Your task to perform on an android device: Go to Yahoo.com Image 0: 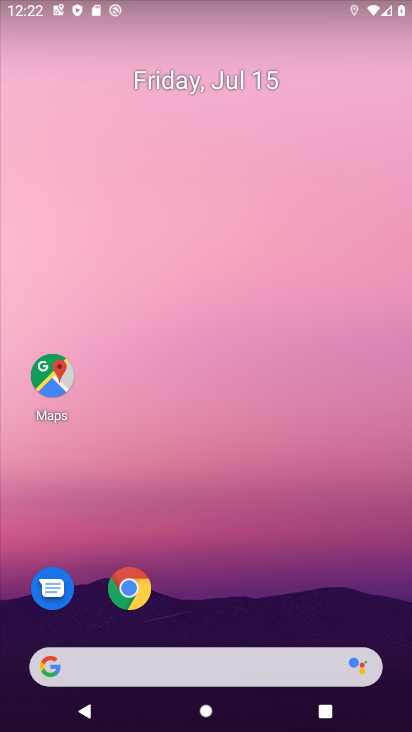
Step 0: click (264, 674)
Your task to perform on an android device: Go to Yahoo.com Image 1: 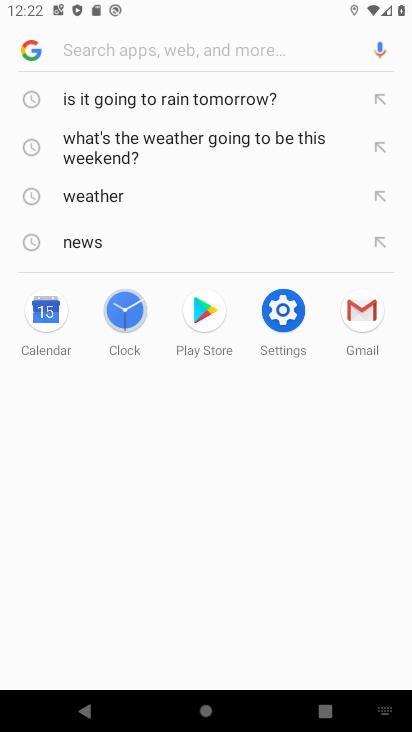
Step 1: type "yahoo.com"
Your task to perform on an android device: Go to Yahoo.com Image 2: 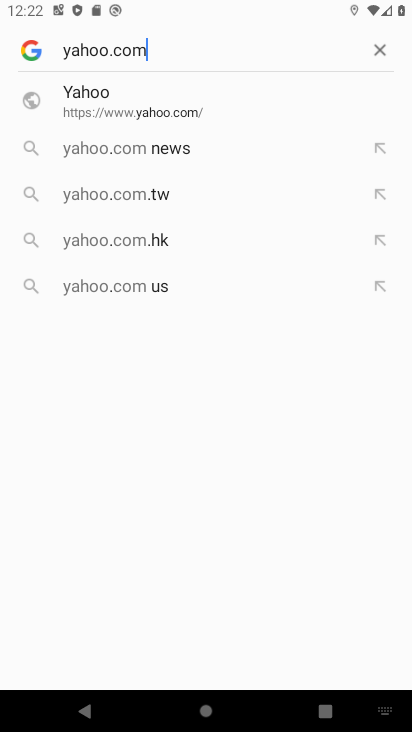
Step 2: click (164, 105)
Your task to perform on an android device: Go to Yahoo.com Image 3: 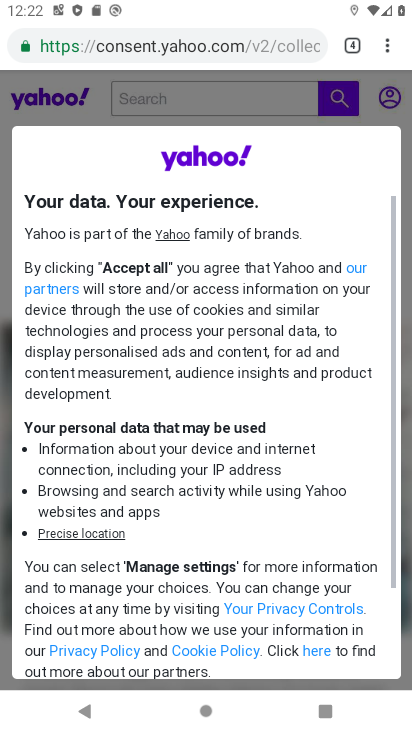
Step 3: task complete